Your task to perform on an android device: Go to accessibility settings Image 0: 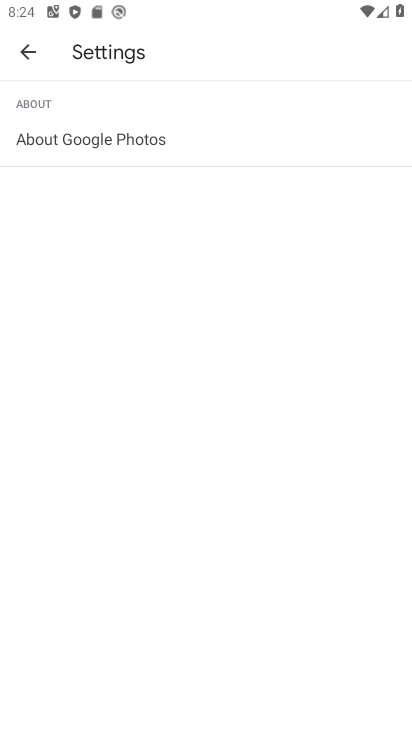
Step 0: press home button
Your task to perform on an android device: Go to accessibility settings Image 1: 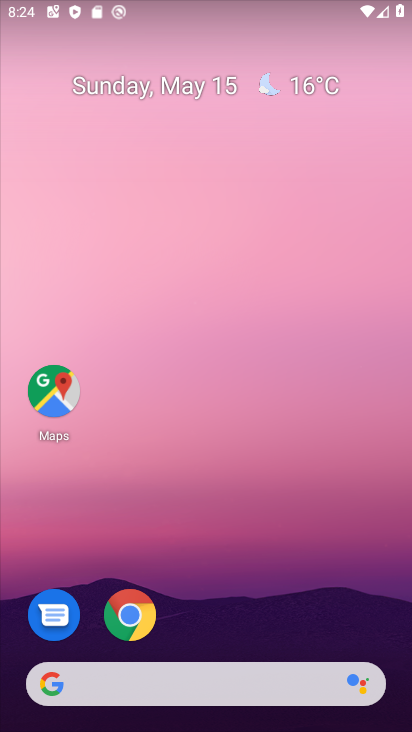
Step 1: drag from (305, 581) to (317, 65)
Your task to perform on an android device: Go to accessibility settings Image 2: 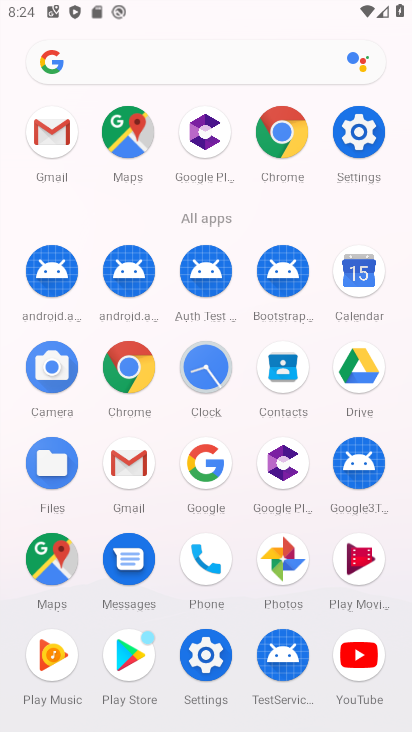
Step 2: click (373, 136)
Your task to perform on an android device: Go to accessibility settings Image 3: 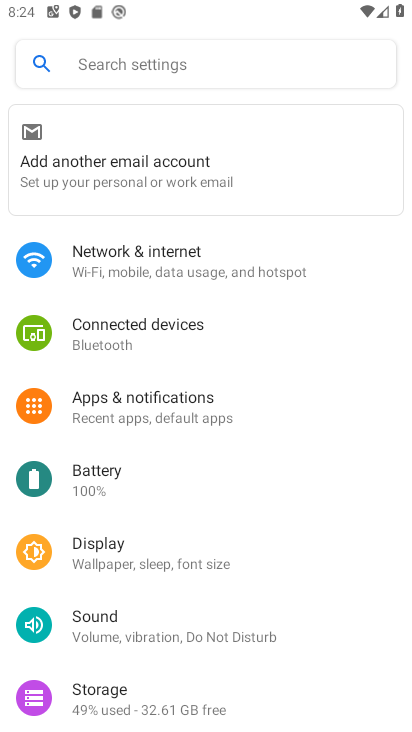
Step 3: drag from (261, 655) to (257, 185)
Your task to perform on an android device: Go to accessibility settings Image 4: 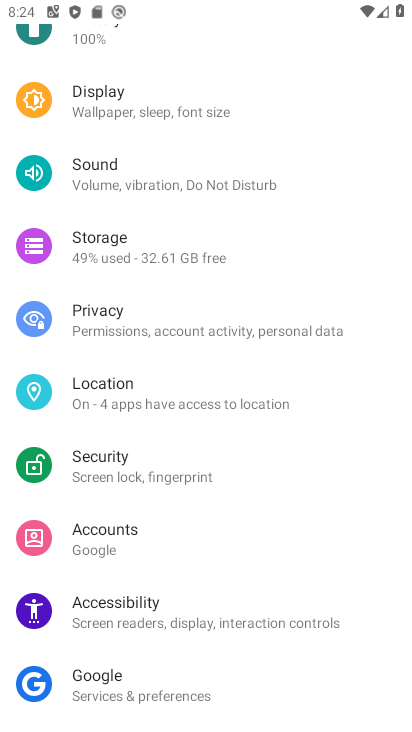
Step 4: click (127, 599)
Your task to perform on an android device: Go to accessibility settings Image 5: 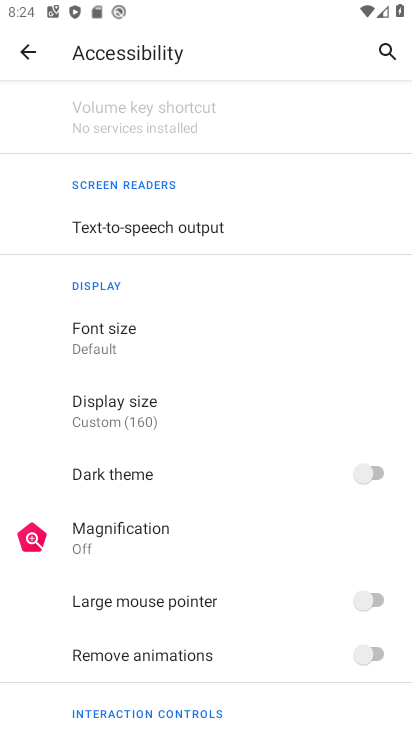
Step 5: task complete